Your task to perform on an android device: Open internet settings Image 0: 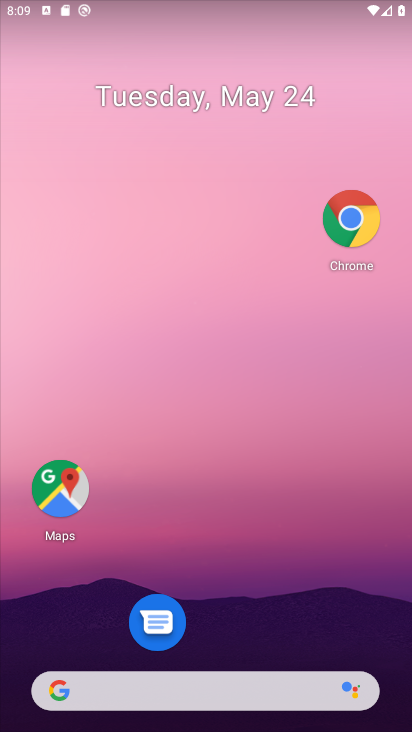
Step 0: drag from (231, 556) to (164, 287)
Your task to perform on an android device: Open internet settings Image 1: 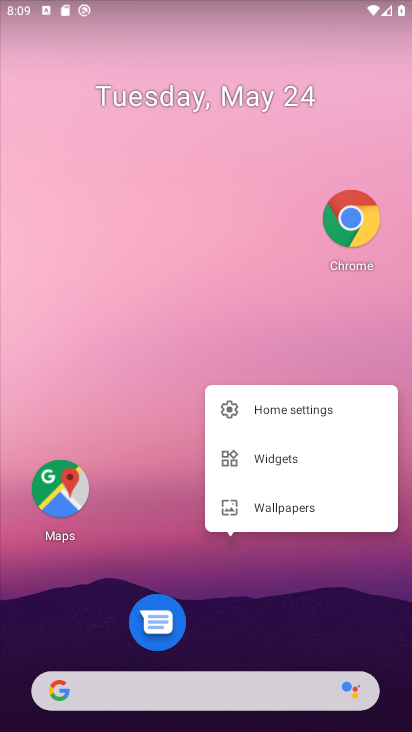
Step 1: click (163, 288)
Your task to perform on an android device: Open internet settings Image 2: 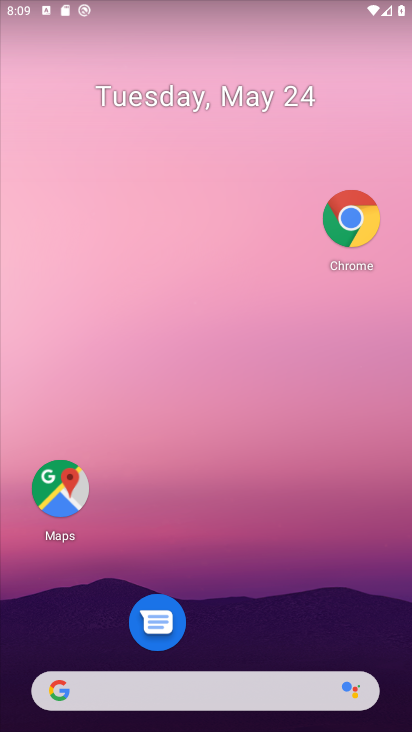
Step 2: drag from (226, 708) to (222, 137)
Your task to perform on an android device: Open internet settings Image 3: 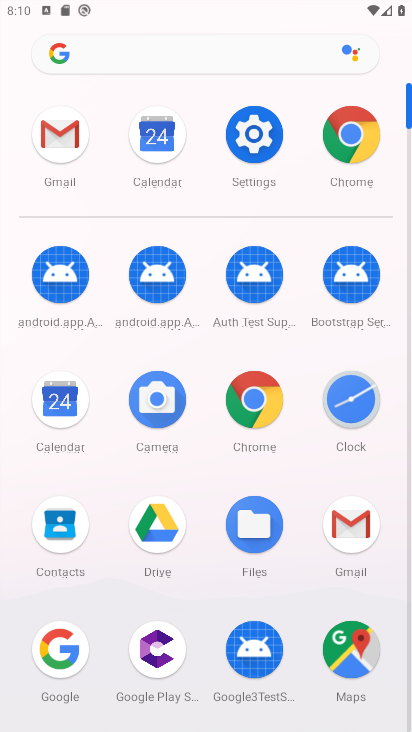
Step 3: click (252, 152)
Your task to perform on an android device: Open internet settings Image 4: 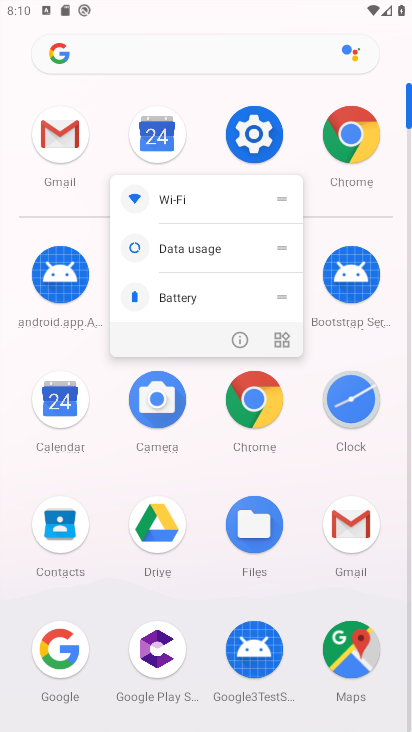
Step 4: click (234, 145)
Your task to perform on an android device: Open internet settings Image 5: 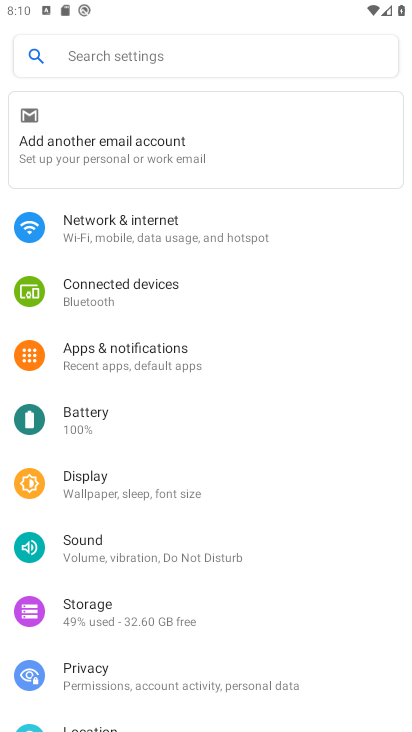
Step 5: click (176, 253)
Your task to perform on an android device: Open internet settings Image 6: 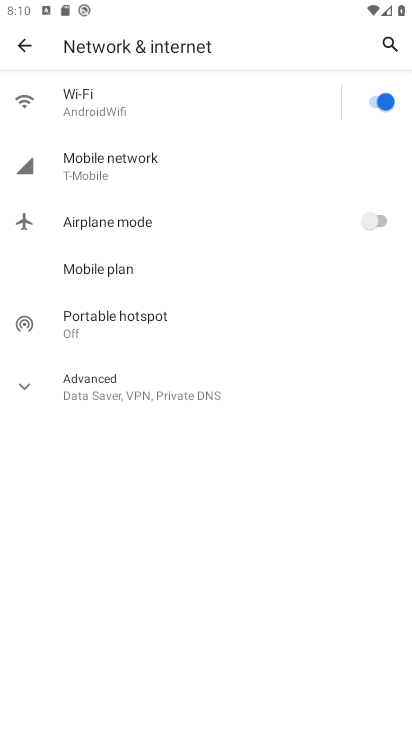
Step 6: task complete